Your task to perform on an android device: Open settings on Google Maps Image 0: 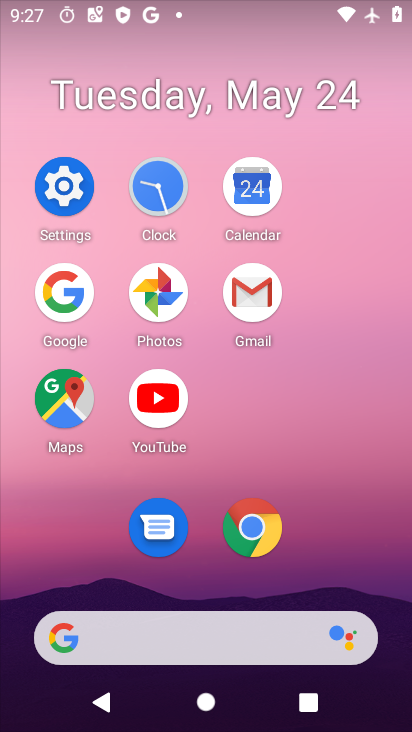
Step 0: click (71, 393)
Your task to perform on an android device: Open settings on Google Maps Image 1: 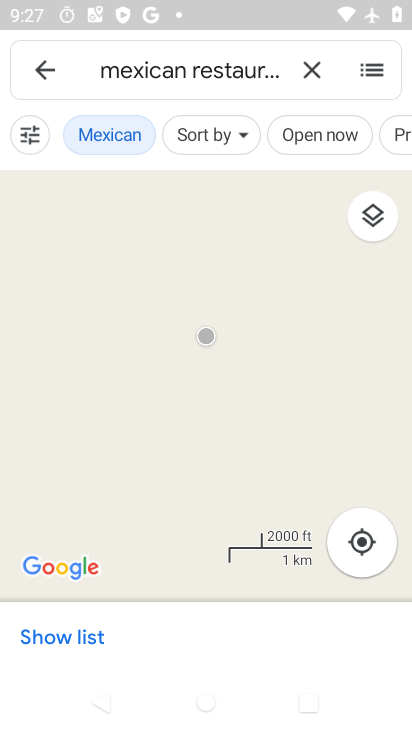
Step 1: click (56, 63)
Your task to perform on an android device: Open settings on Google Maps Image 2: 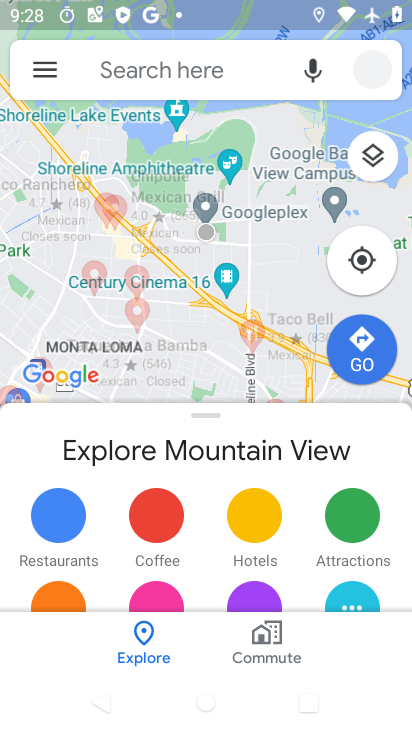
Step 2: click (56, 63)
Your task to perform on an android device: Open settings on Google Maps Image 3: 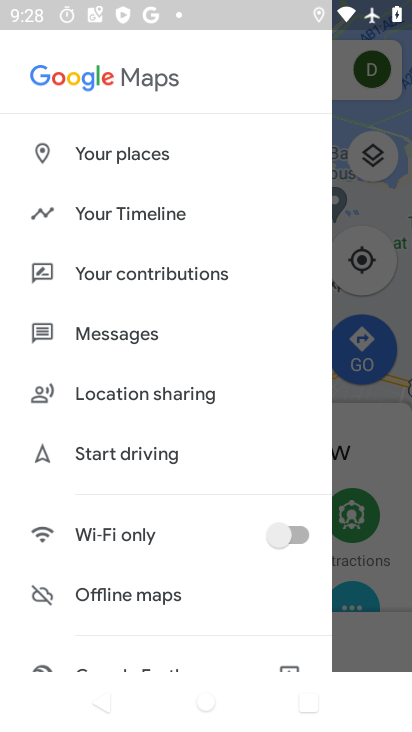
Step 3: drag from (146, 540) to (105, 146)
Your task to perform on an android device: Open settings on Google Maps Image 4: 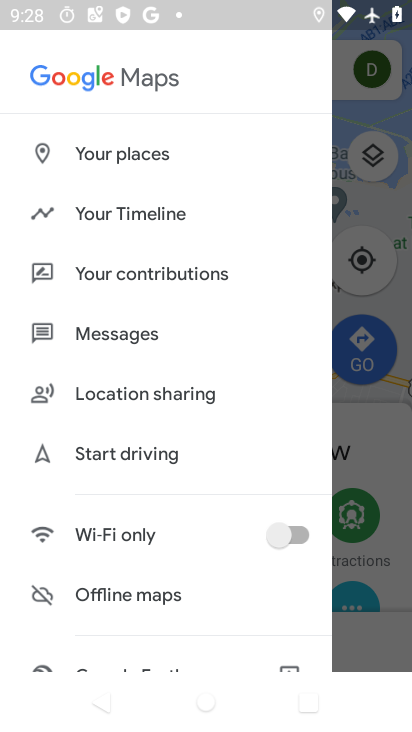
Step 4: drag from (170, 574) to (240, 203)
Your task to perform on an android device: Open settings on Google Maps Image 5: 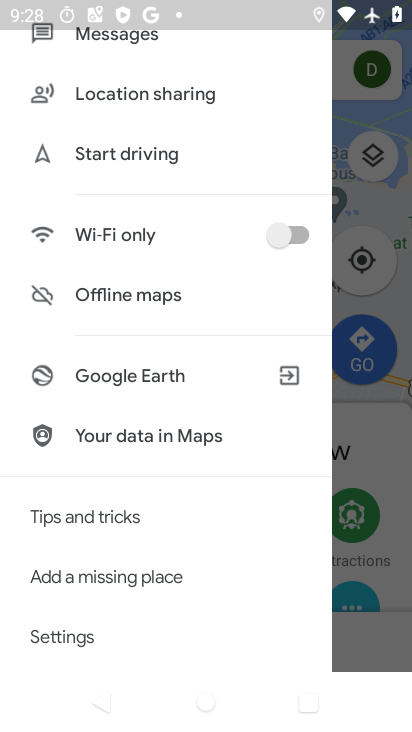
Step 5: drag from (162, 562) to (152, 242)
Your task to perform on an android device: Open settings on Google Maps Image 6: 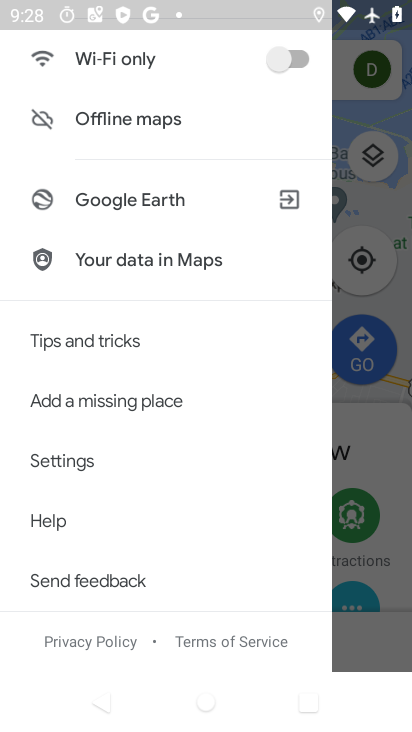
Step 6: click (50, 466)
Your task to perform on an android device: Open settings on Google Maps Image 7: 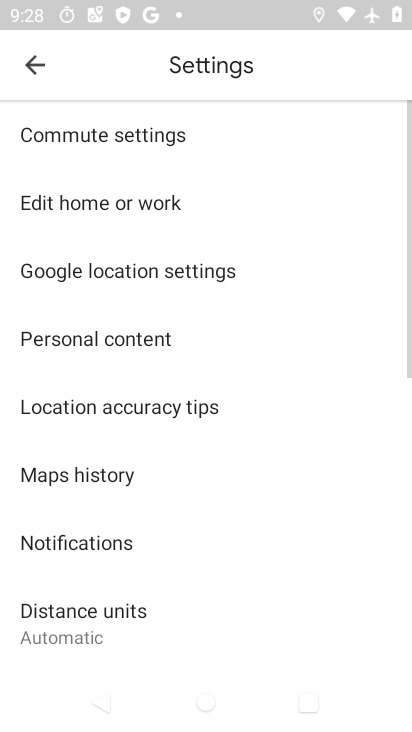
Step 7: task complete